Your task to perform on an android device: change the clock display to show seconds Image 0: 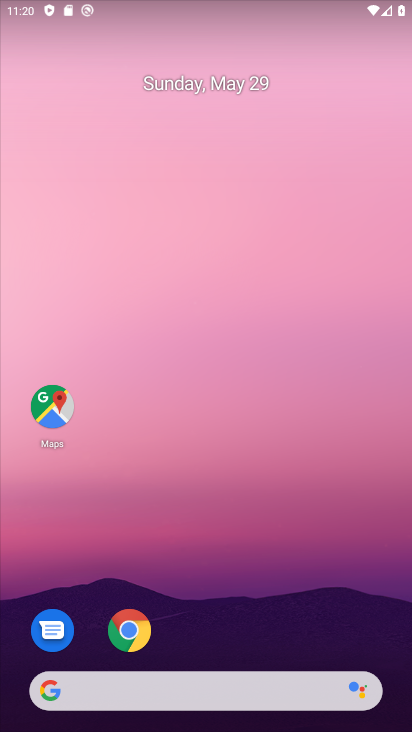
Step 0: drag from (147, 728) to (109, 11)
Your task to perform on an android device: change the clock display to show seconds Image 1: 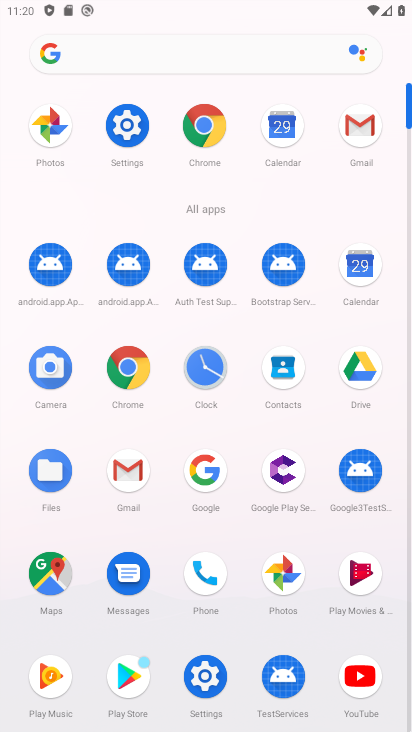
Step 1: click (211, 381)
Your task to perform on an android device: change the clock display to show seconds Image 2: 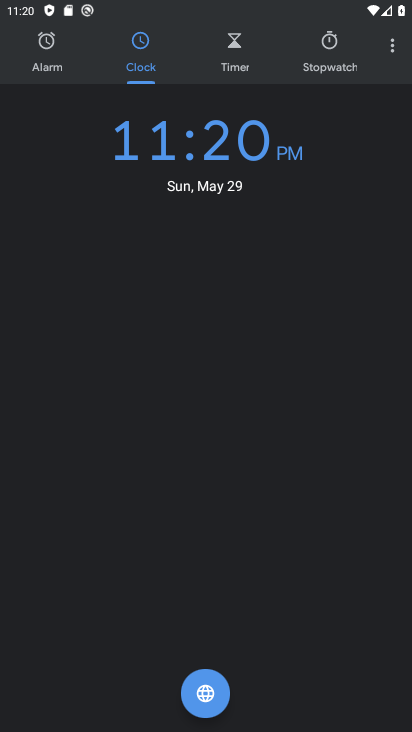
Step 2: click (397, 51)
Your task to perform on an android device: change the clock display to show seconds Image 3: 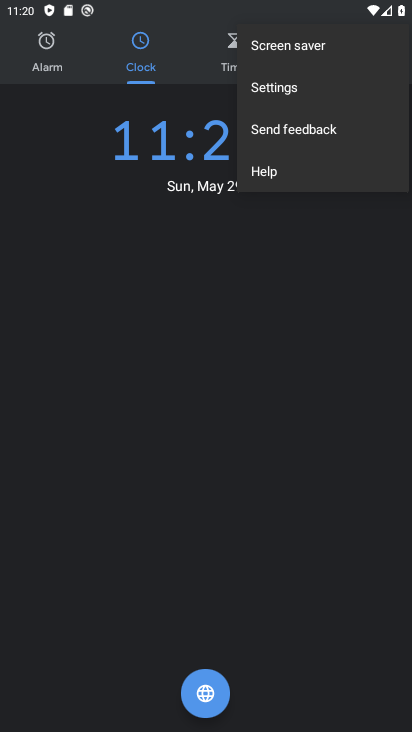
Step 3: click (271, 94)
Your task to perform on an android device: change the clock display to show seconds Image 4: 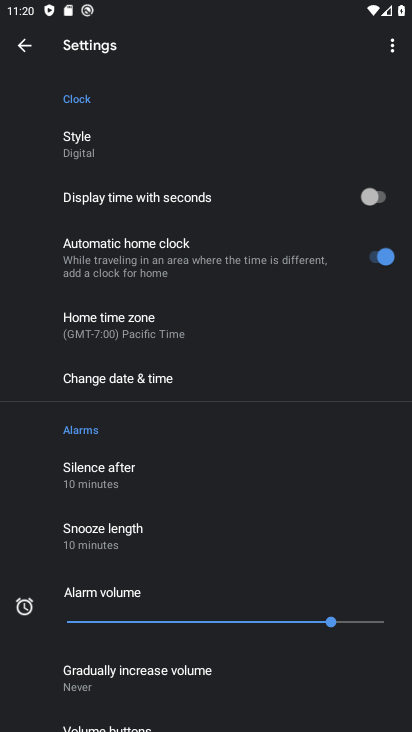
Step 4: click (386, 198)
Your task to perform on an android device: change the clock display to show seconds Image 5: 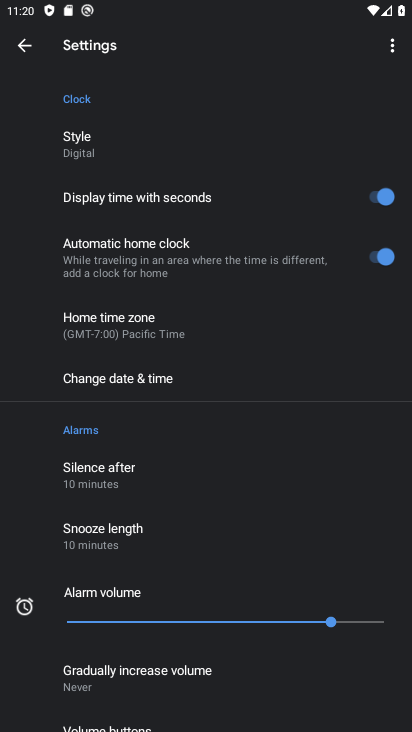
Step 5: task complete